Your task to perform on an android device: set the timer Image 0: 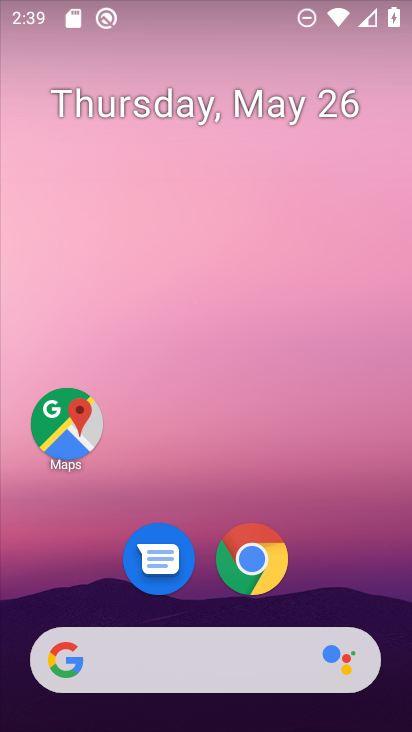
Step 0: drag from (197, 684) to (375, 191)
Your task to perform on an android device: set the timer Image 1: 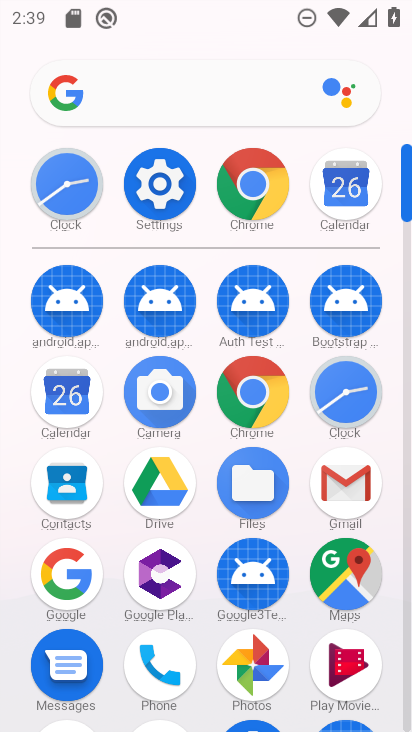
Step 1: click (344, 406)
Your task to perform on an android device: set the timer Image 2: 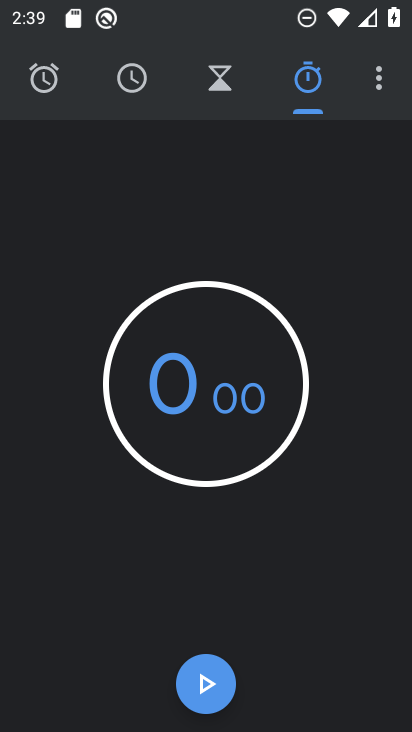
Step 2: click (220, 83)
Your task to perform on an android device: set the timer Image 3: 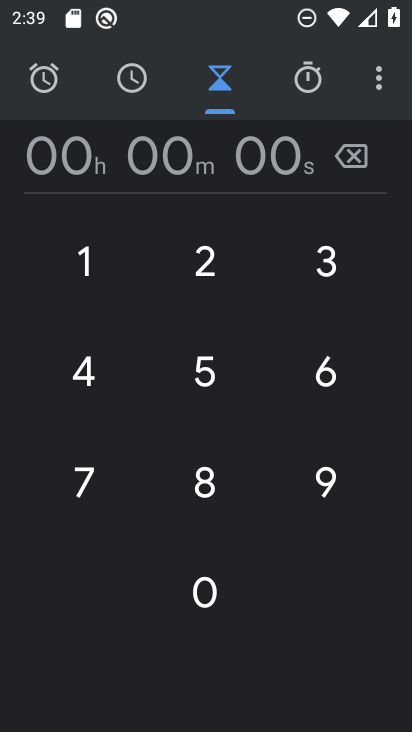
Step 3: click (88, 261)
Your task to perform on an android device: set the timer Image 4: 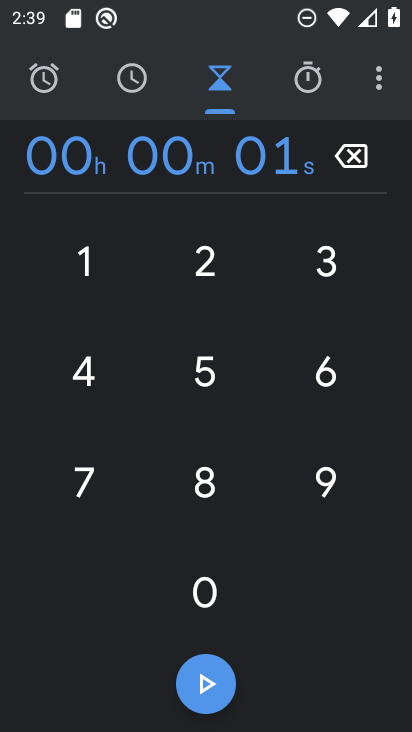
Step 4: click (202, 481)
Your task to perform on an android device: set the timer Image 5: 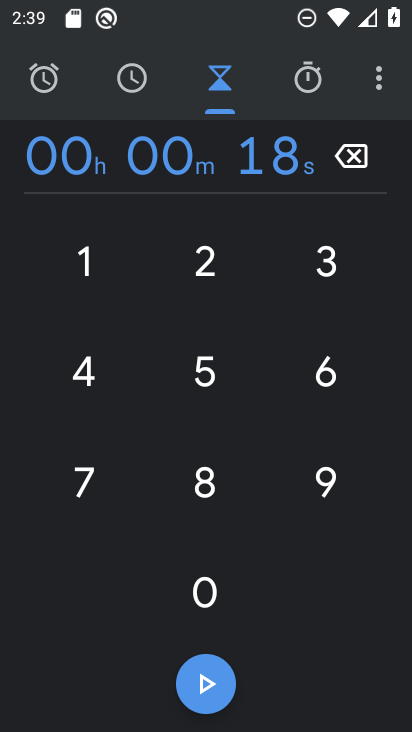
Step 5: click (219, 695)
Your task to perform on an android device: set the timer Image 6: 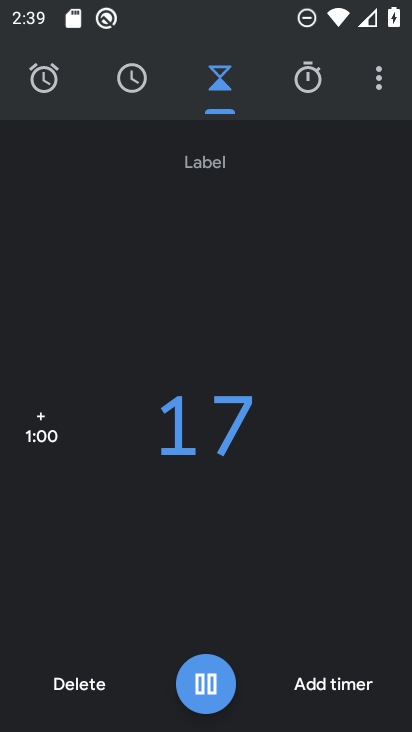
Step 6: click (213, 697)
Your task to perform on an android device: set the timer Image 7: 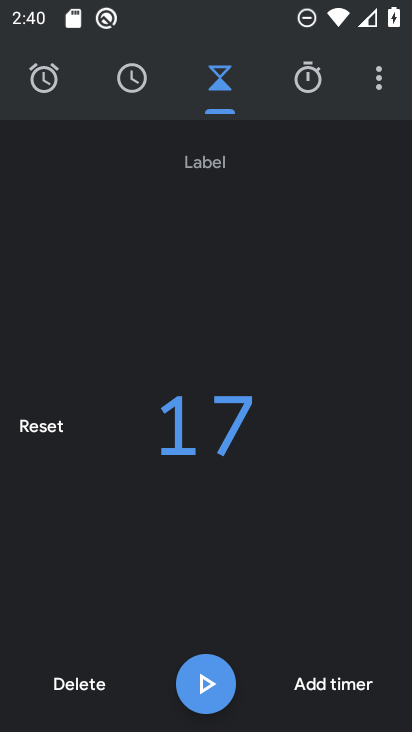
Step 7: task complete